Your task to perform on an android device: Go to settings Image 0: 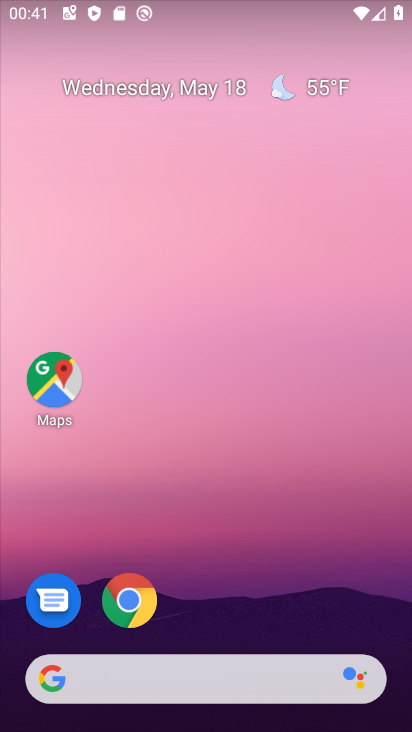
Step 0: drag from (197, 656) to (12, 0)
Your task to perform on an android device: Go to settings Image 1: 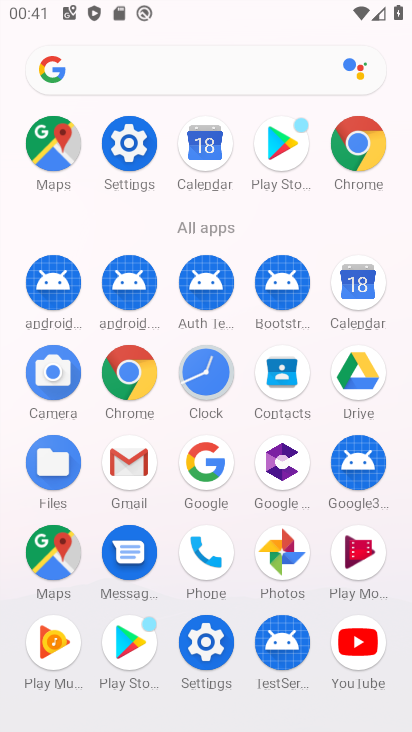
Step 1: click (124, 180)
Your task to perform on an android device: Go to settings Image 2: 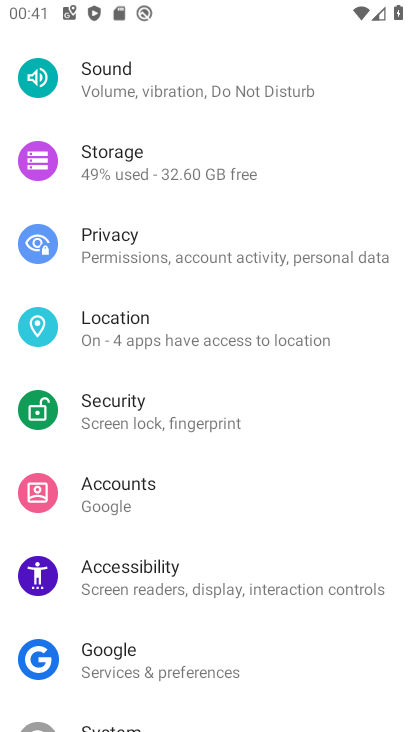
Step 2: task complete